Your task to perform on an android device: open sync settings in chrome Image 0: 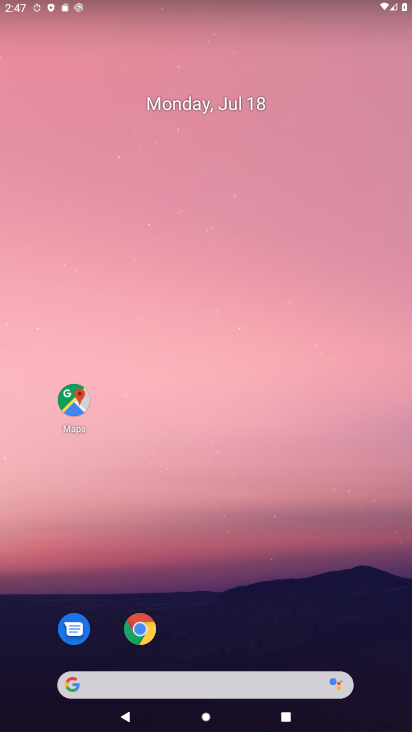
Step 0: drag from (197, 640) to (190, 15)
Your task to perform on an android device: open sync settings in chrome Image 1: 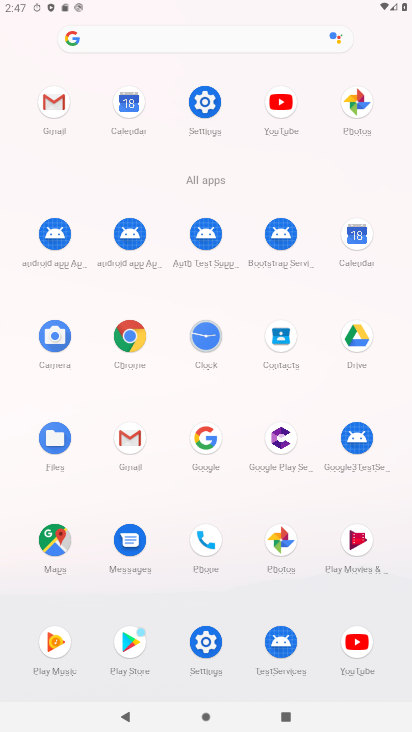
Step 1: click (131, 346)
Your task to perform on an android device: open sync settings in chrome Image 2: 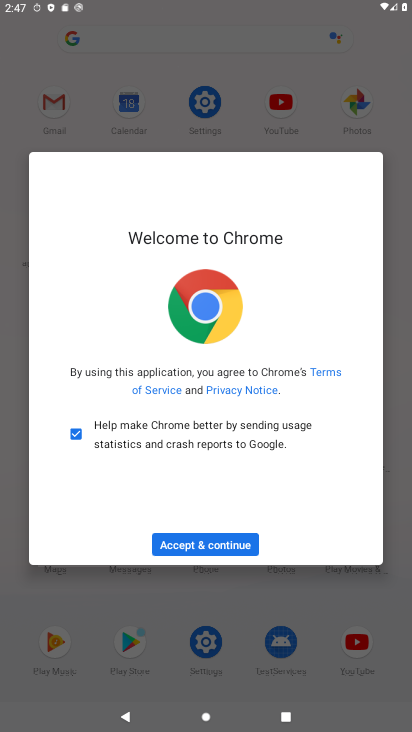
Step 2: click (244, 545)
Your task to perform on an android device: open sync settings in chrome Image 3: 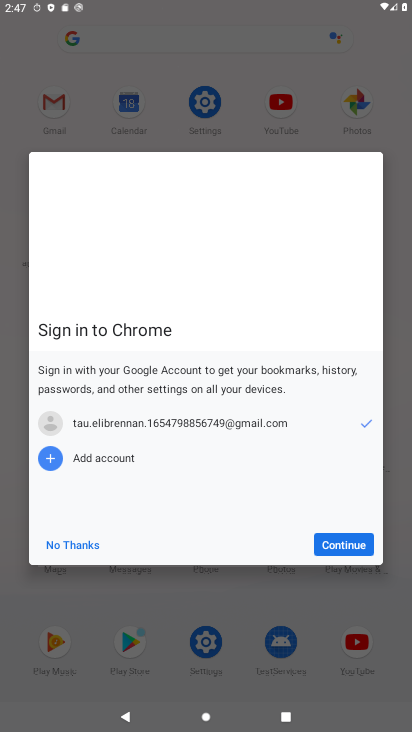
Step 3: click (343, 545)
Your task to perform on an android device: open sync settings in chrome Image 4: 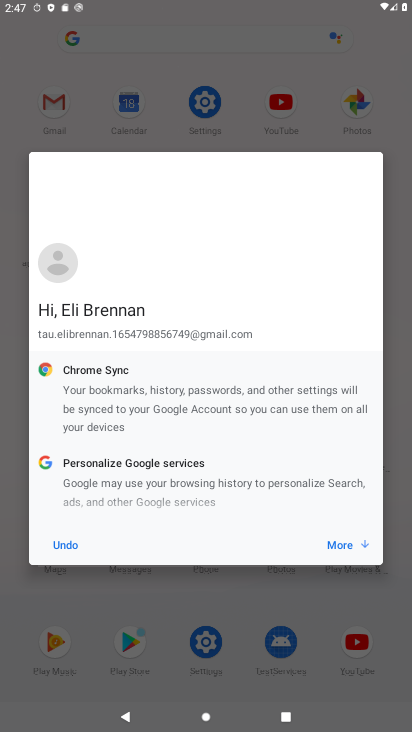
Step 4: click (343, 545)
Your task to perform on an android device: open sync settings in chrome Image 5: 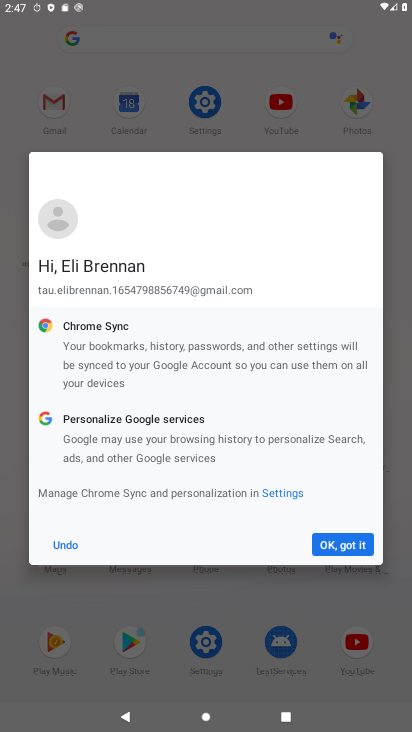
Step 5: click (356, 542)
Your task to perform on an android device: open sync settings in chrome Image 6: 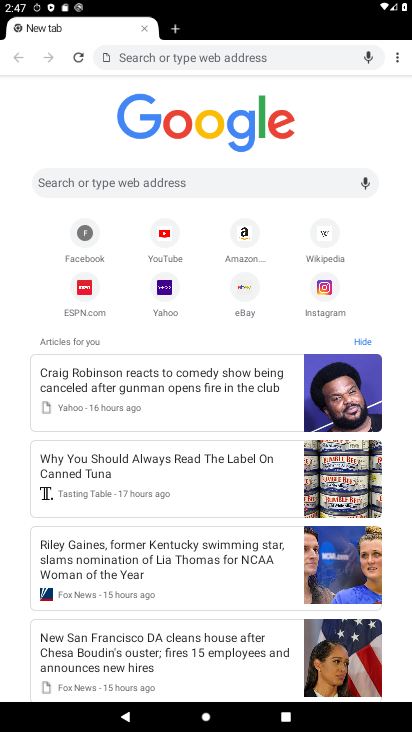
Step 6: click (392, 67)
Your task to perform on an android device: open sync settings in chrome Image 7: 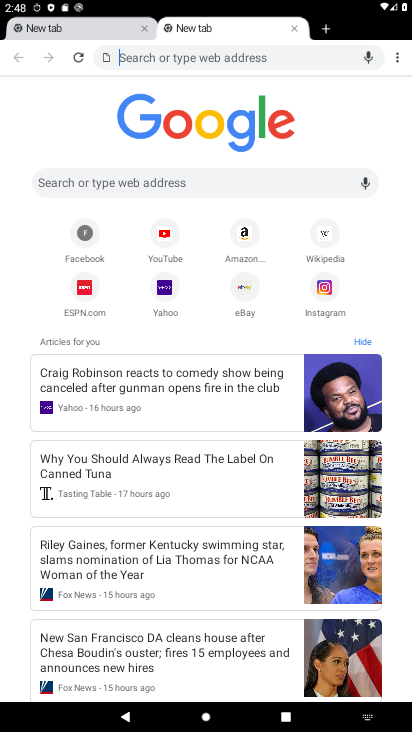
Step 7: click (392, 50)
Your task to perform on an android device: open sync settings in chrome Image 8: 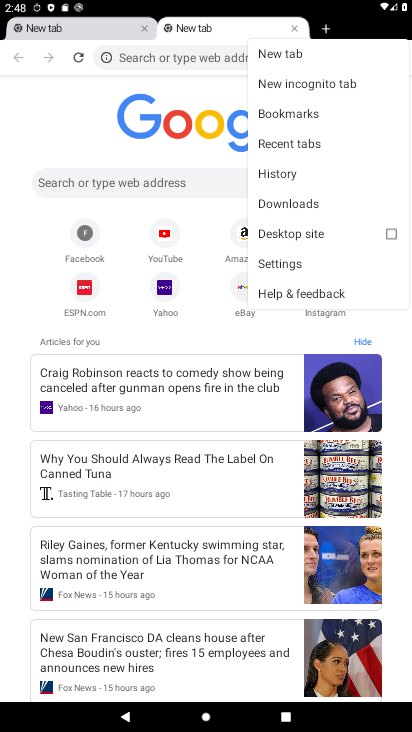
Step 8: click (289, 261)
Your task to perform on an android device: open sync settings in chrome Image 9: 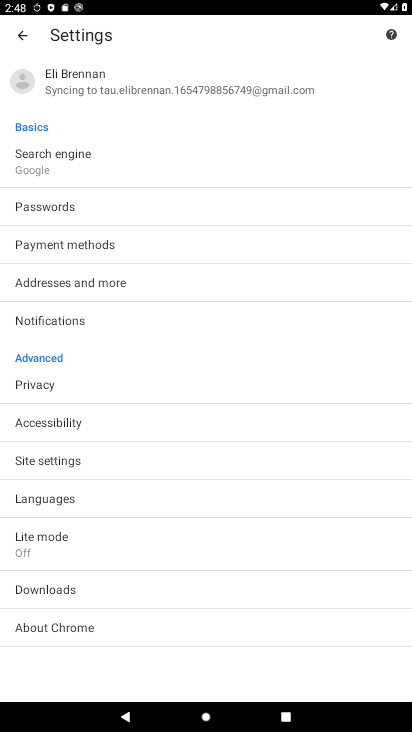
Step 9: click (115, 90)
Your task to perform on an android device: open sync settings in chrome Image 10: 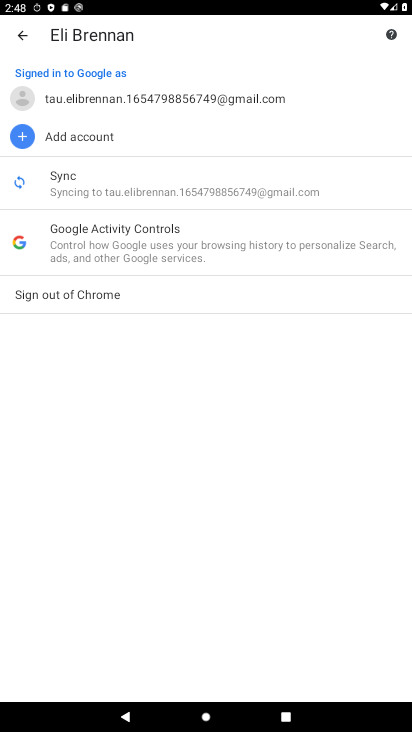
Step 10: click (168, 190)
Your task to perform on an android device: open sync settings in chrome Image 11: 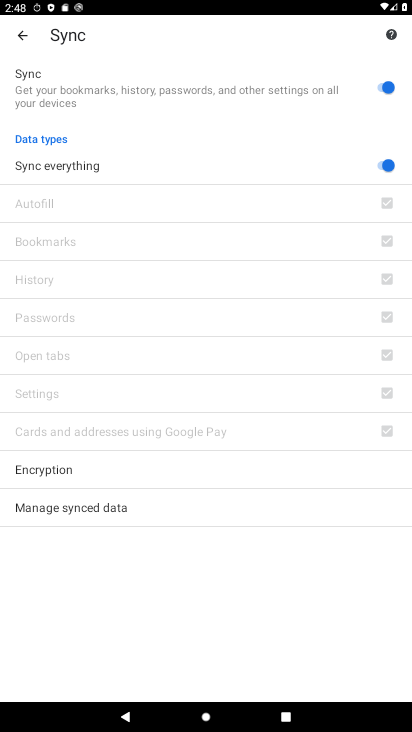
Step 11: task complete